Your task to perform on an android device: change the clock display to show seconds Image 0: 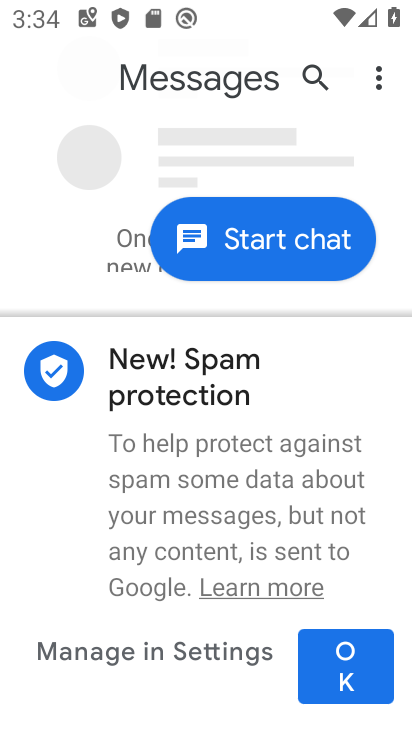
Step 0: press home button
Your task to perform on an android device: change the clock display to show seconds Image 1: 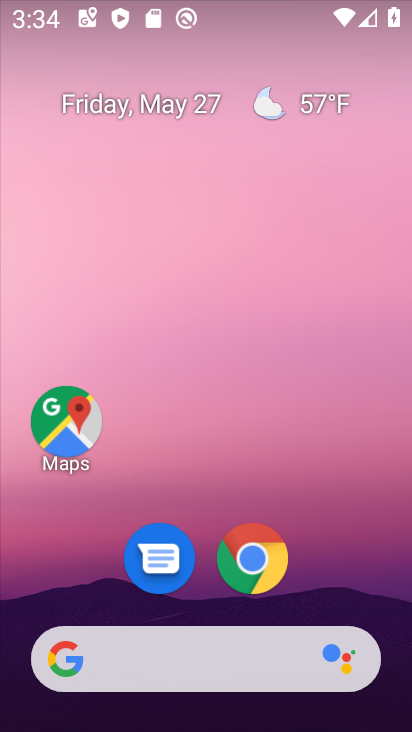
Step 1: drag from (371, 575) to (323, 100)
Your task to perform on an android device: change the clock display to show seconds Image 2: 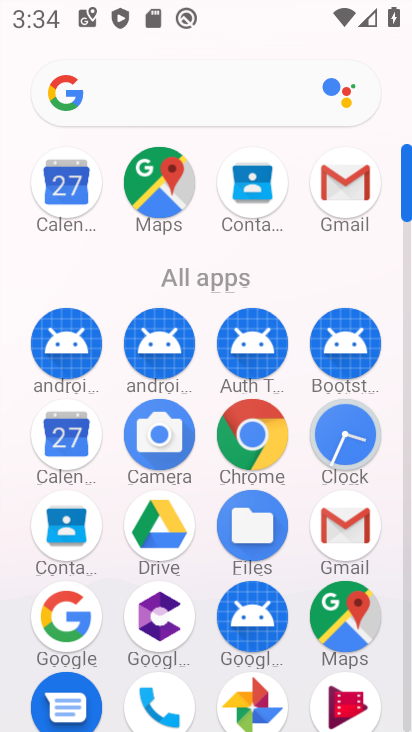
Step 2: click (405, 721)
Your task to perform on an android device: change the clock display to show seconds Image 3: 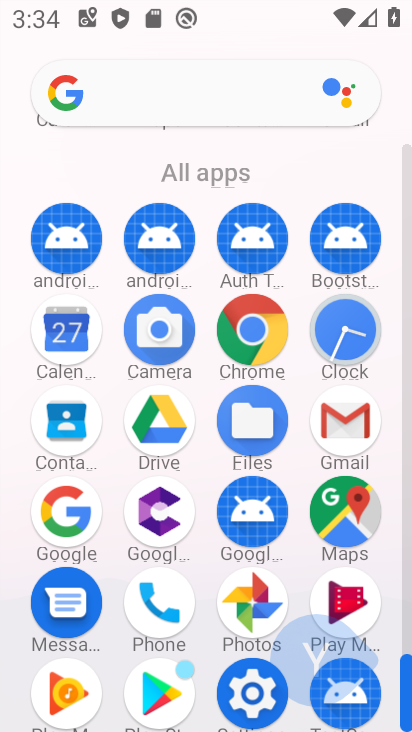
Step 3: click (405, 721)
Your task to perform on an android device: change the clock display to show seconds Image 4: 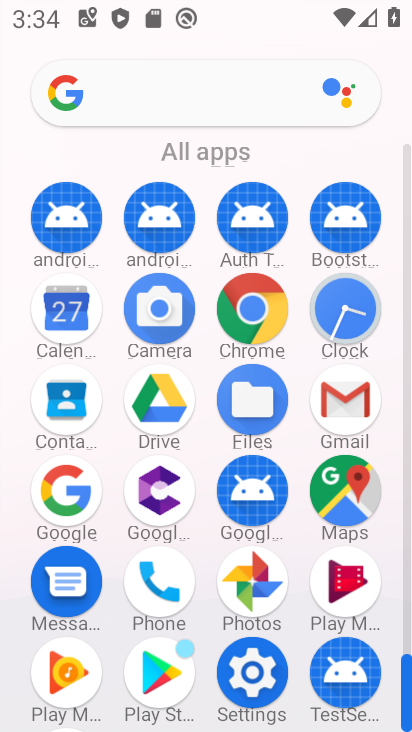
Step 4: click (257, 662)
Your task to perform on an android device: change the clock display to show seconds Image 5: 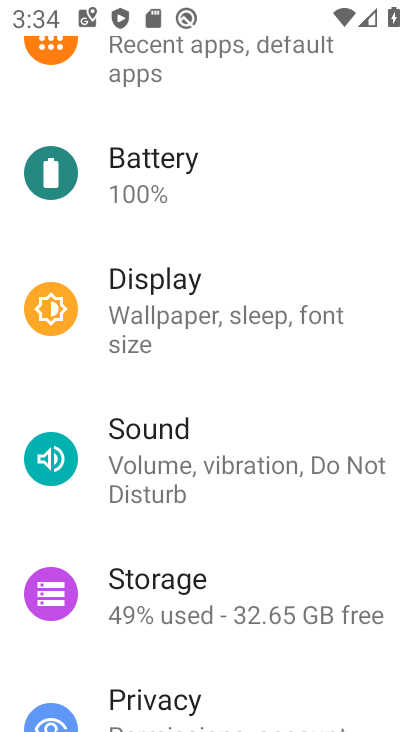
Step 5: press back button
Your task to perform on an android device: change the clock display to show seconds Image 6: 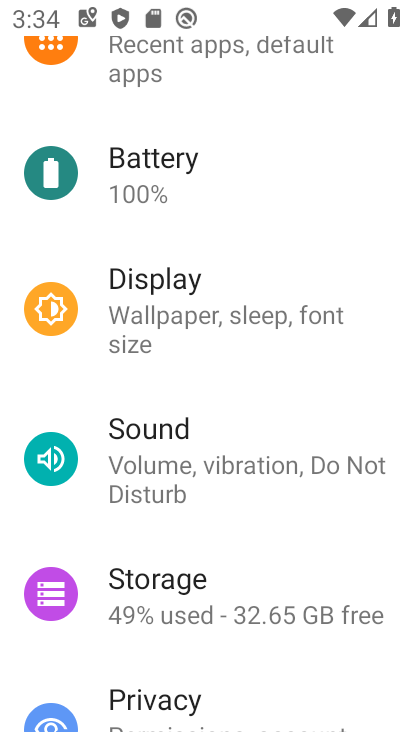
Step 6: press back button
Your task to perform on an android device: change the clock display to show seconds Image 7: 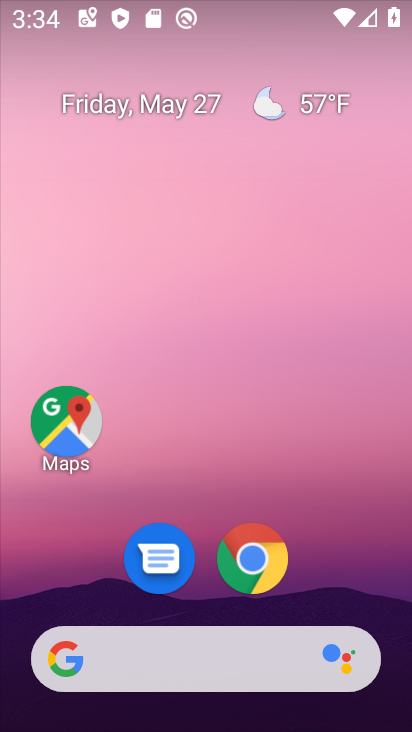
Step 7: drag from (318, 573) to (310, 87)
Your task to perform on an android device: change the clock display to show seconds Image 8: 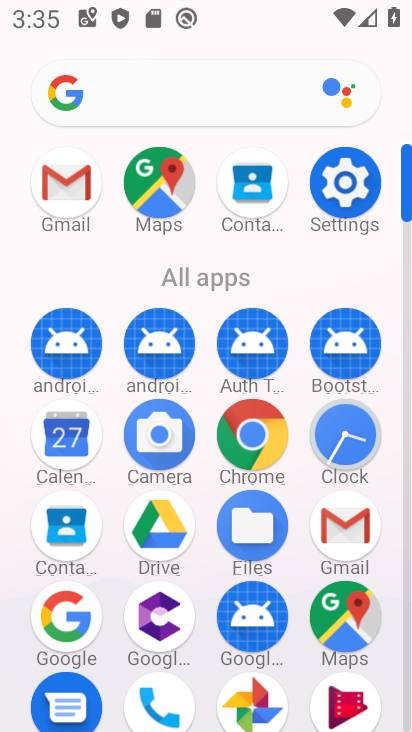
Step 8: click (341, 180)
Your task to perform on an android device: change the clock display to show seconds Image 9: 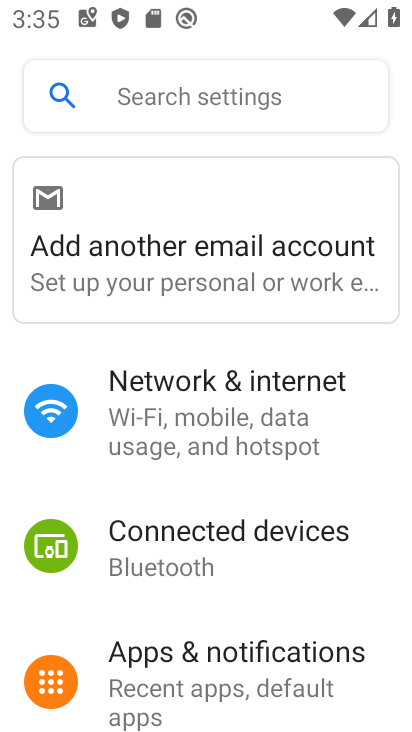
Step 9: press home button
Your task to perform on an android device: change the clock display to show seconds Image 10: 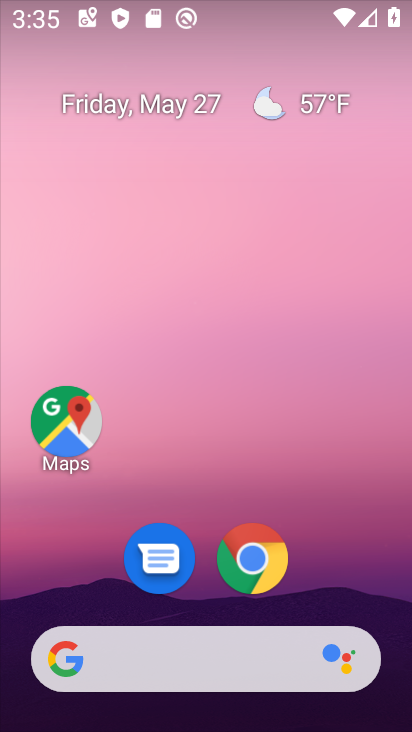
Step 10: drag from (355, 557) to (298, 60)
Your task to perform on an android device: change the clock display to show seconds Image 11: 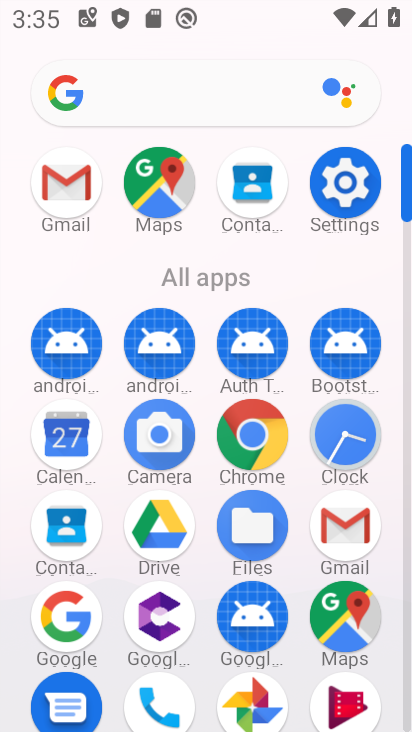
Step 11: click (366, 455)
Your task to perform on an android device: change the clock display to show seconds Image 12: 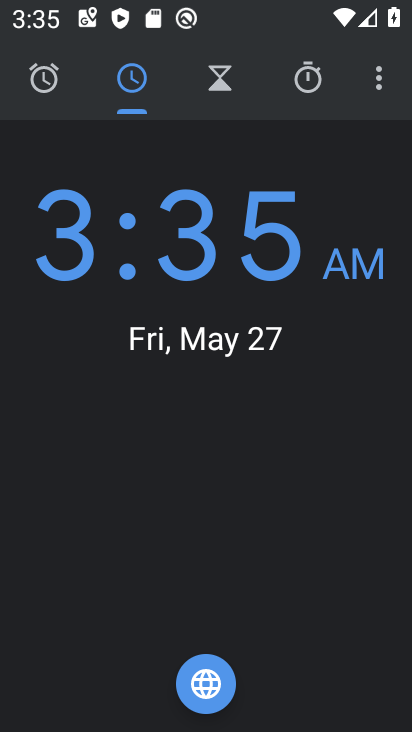
Step 12: click (370, 93)
Your task to perform on an android device: change the clock display to show seconds Image 13: 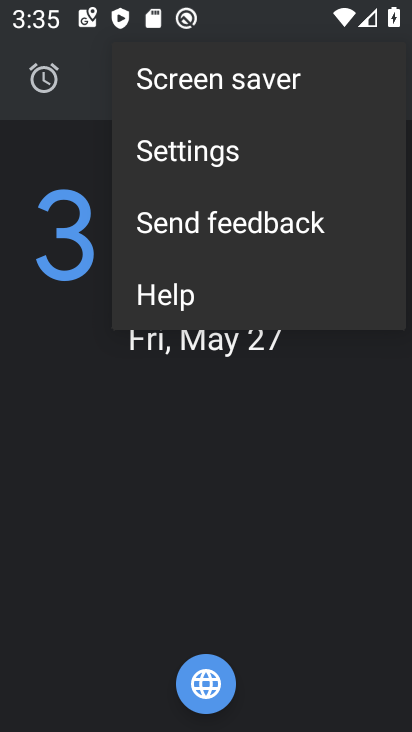
Step 13: click (287, 172)
Your task to perform on an android device: change the clock display to show seconds Image 14: 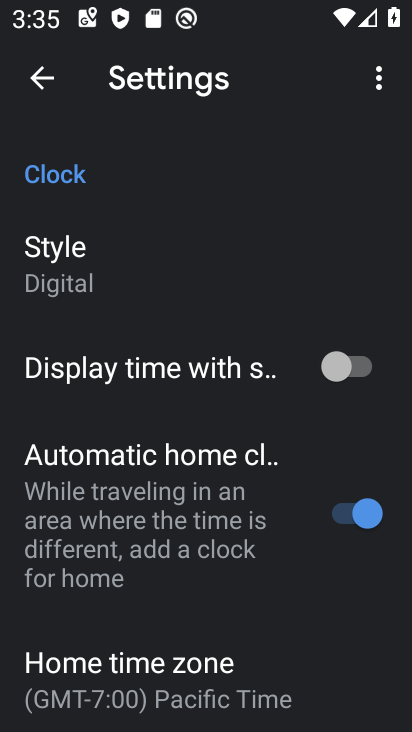
Step 14: click (339, 354)
Your task to perform on an android device: change the clock display to show seconds Image 15: 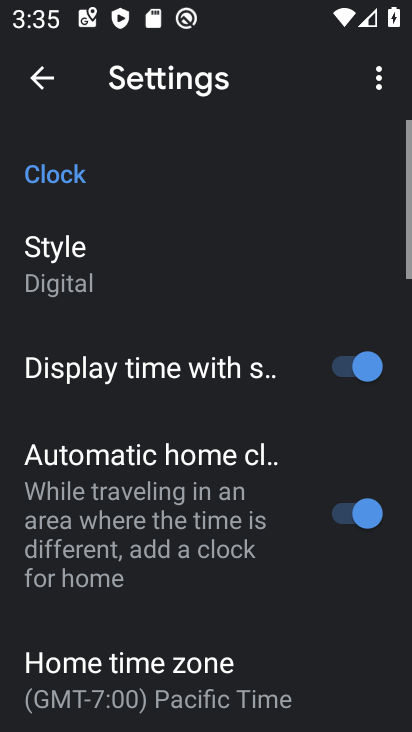
Step 15: task complete